Your task to perform on an android device: Open Reddit.com Image 0: 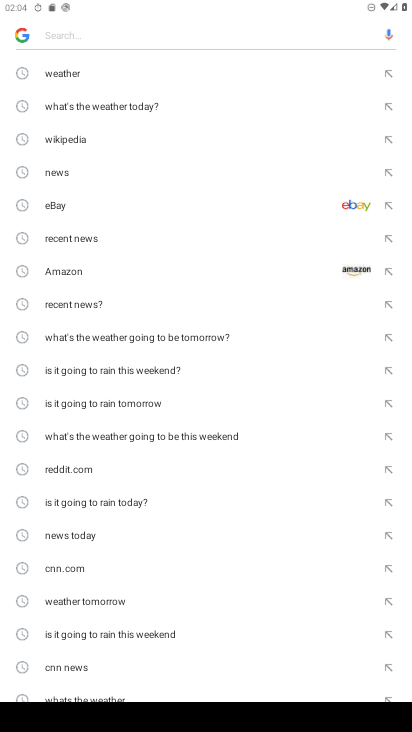
Step 0: press home button
Your task to perform on an android device: Open Reddit.com Image 1: 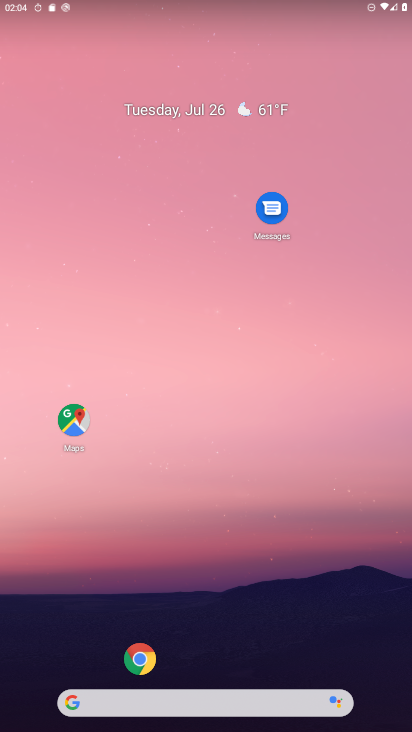
Step 1: click (126, 702)
Your task to perform on an android device: Open Reddit.com Image 2: 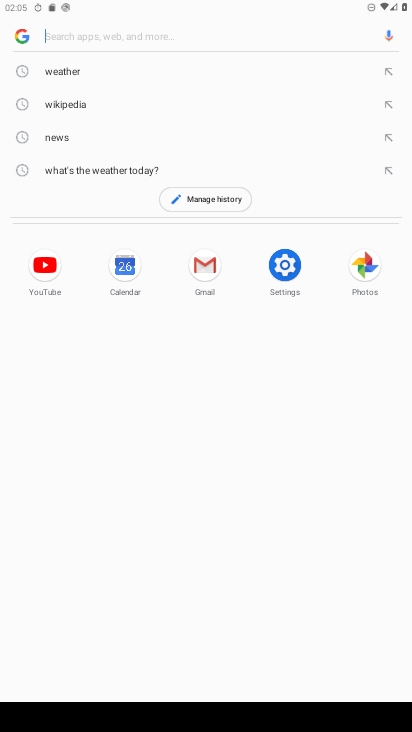
Step 2: type "Reddit.com"
Your task to perform on an android device: Open Reddit.com Image 3: 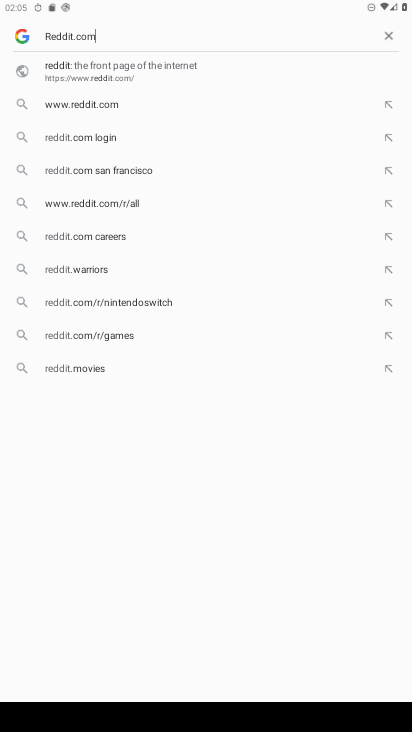
Step 3: type ""
Your task to perform on an android device: Open Reddit.com Image 4: 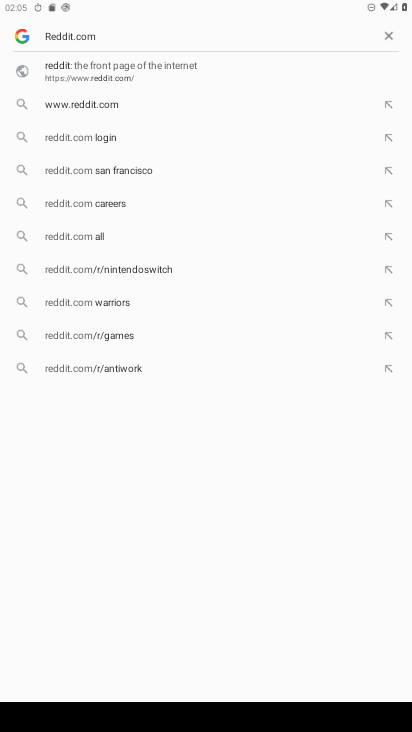
Step 4: click (97, 113)
Your task to perform on an android device: Open Reddit.com Image 5: 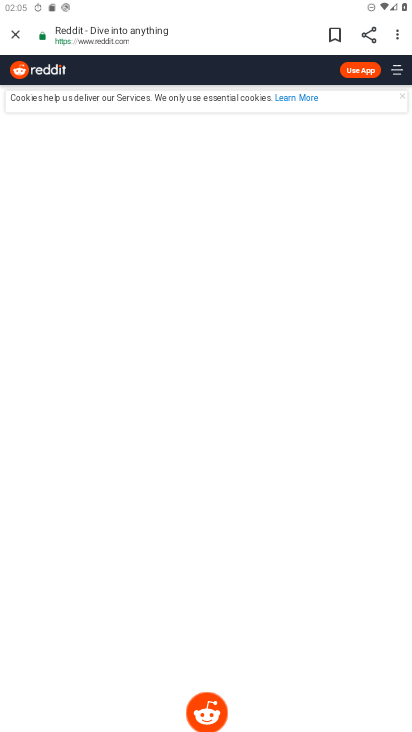
Step 5: task complete